Your task to perform on an android device: Search for pizza restaurants on Maps Image 0: 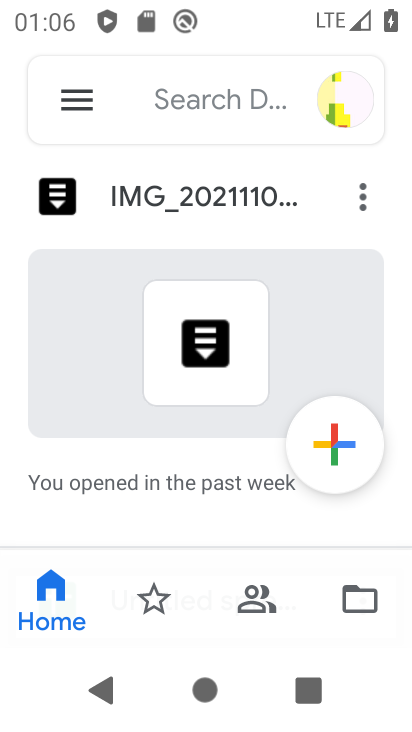
Step 0: press home button
Your task to perform on an android device: Search for pizza restaurants on Maps Image 1: 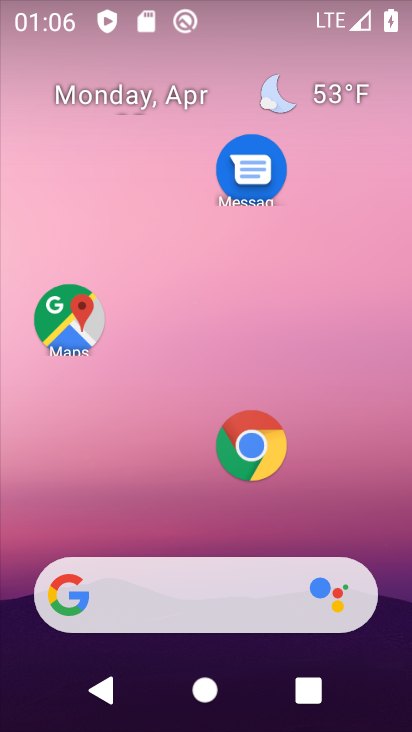
Step 1: click (70, 327)
Your task to perform on an android device: Search for pizza restaurants on Maps Image 2: 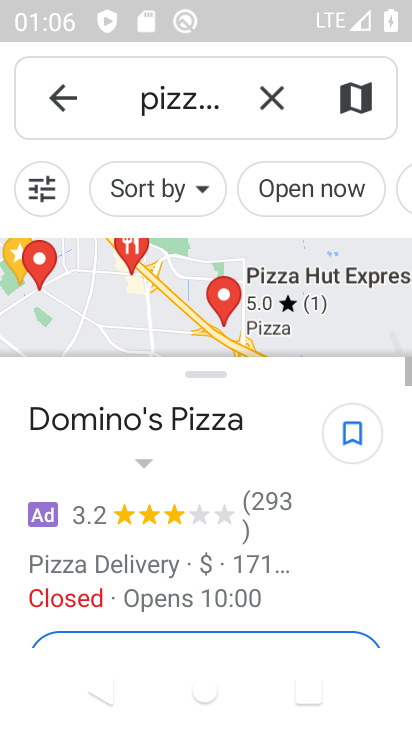
Step 2: task complete